Your task to perform on an android device: open a new tab in the chrome app Image 0: 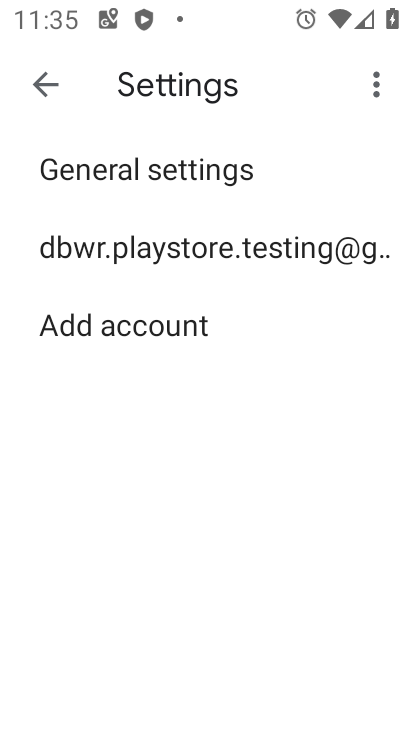
Step 0: press home button
Your task to perform on an android device: open a new tab in the chrome app Image 1: 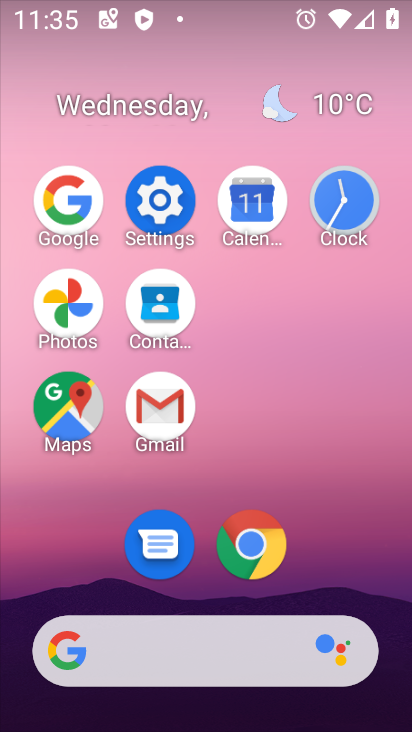
Step 1: click (259, 535)
Your task to perform on an android device: open a new tab in the chrome app Image 2: 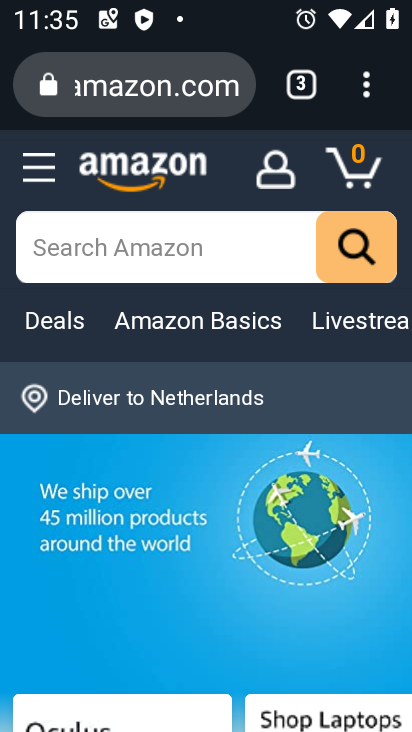
Step 2: click (297, 74)
Your task to perform on an android device: open a new tab in the chrome app Image 3: 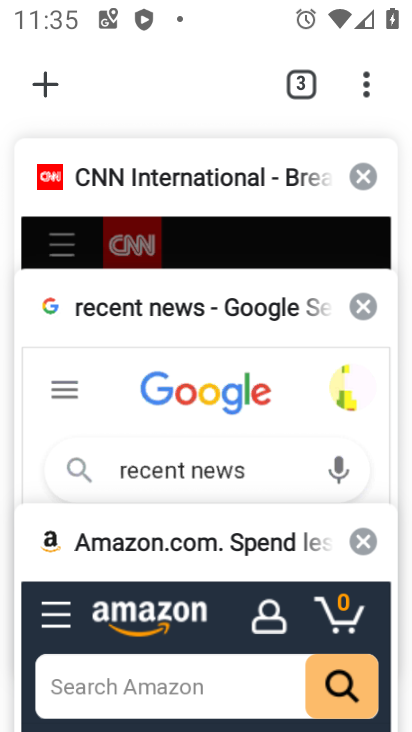
Step 3: click (42, 81)
Your task to perform on an android device: open a new tab in the chrome app Image 4: 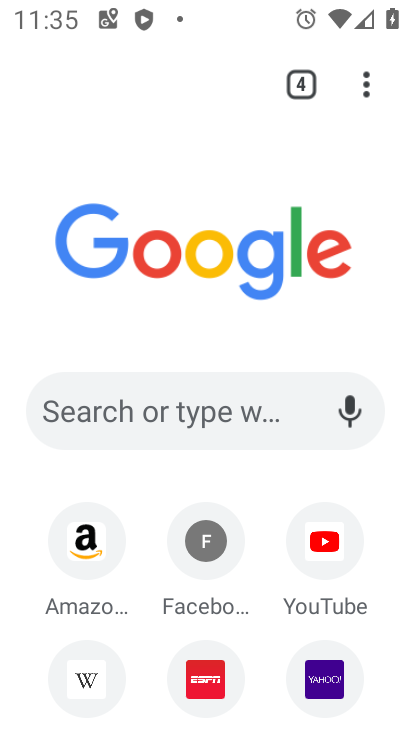
Step 4: task complete